Your task to perform on an android device: Open my contact list Image 0: 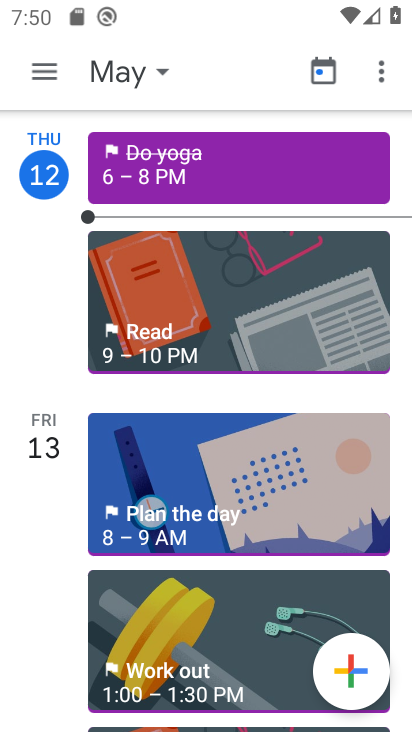
Step 0: press home button
Your task to perform on an android device: Open my contact list Image 1: 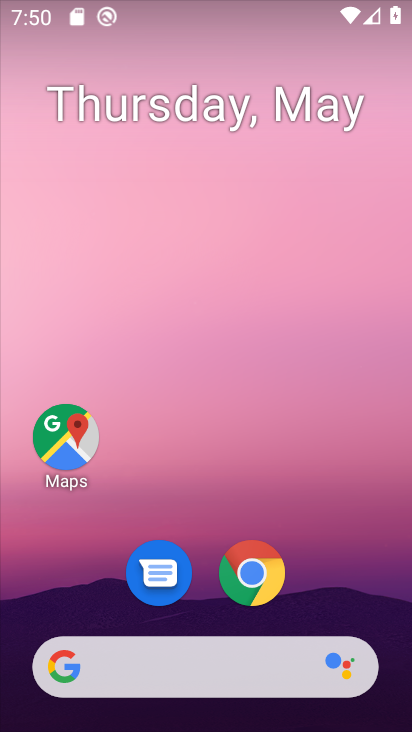
Step 1: drag from (203, 626) to (124, 9)
Your task to perform on an android device: Open my contact list Image 2: 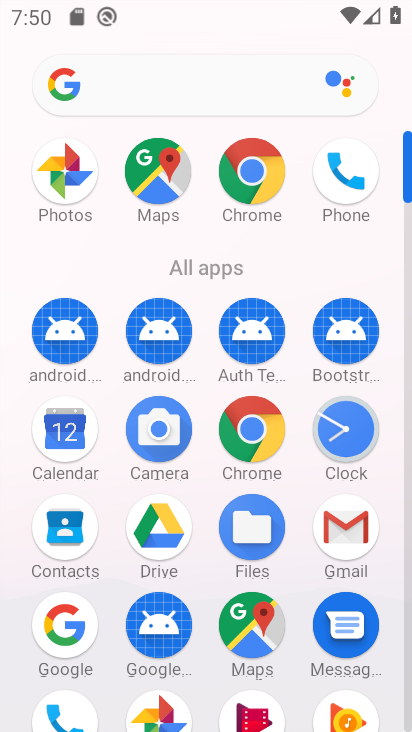
Step 2: click (49, 713)
Your task to perform on an android device: Open my contact list Image 3: 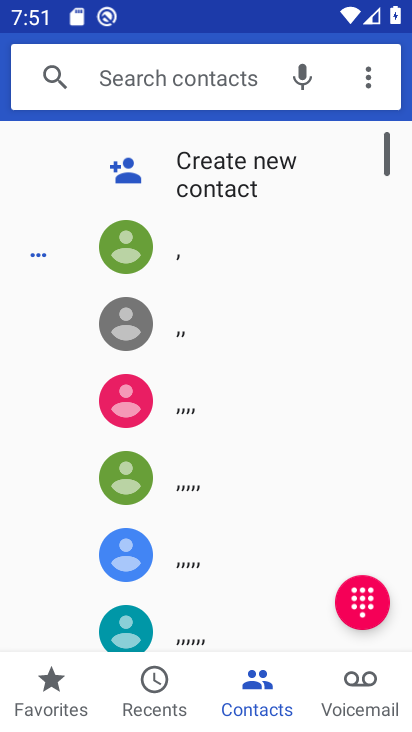
Step 3: press home button
Your task to perform on an android device: Open my contact list Image 4: 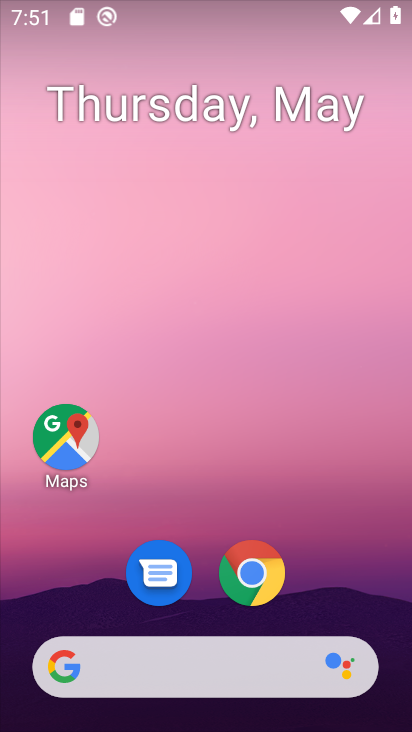
Step 4: drag from (201, 604) to (402, 656)
Your task to perform on an android device: Open my contact list Image 5: 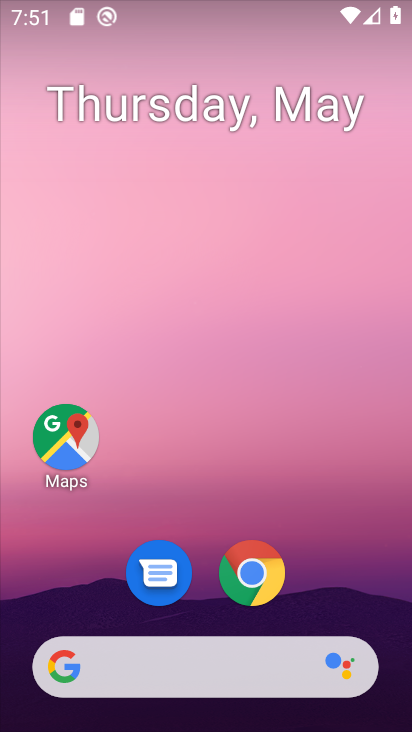
Step 5: click (195, 33)
Your task to perform on an android device: Open my contact list Image 6: 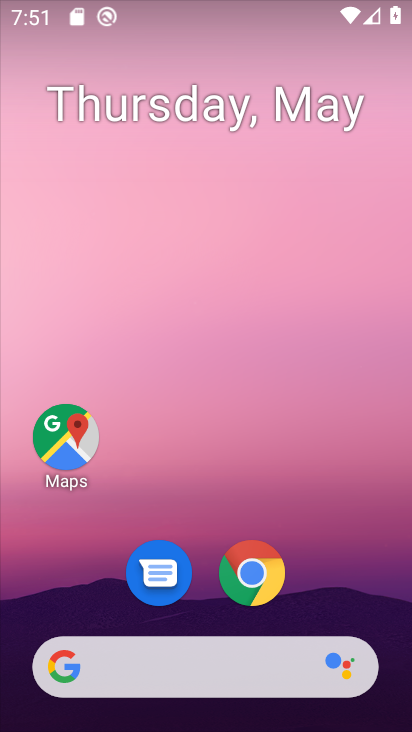
Step 6: drag from (207, 610) to (156, 100)
Your task to perform on an android device: Open my contact list Image 7: 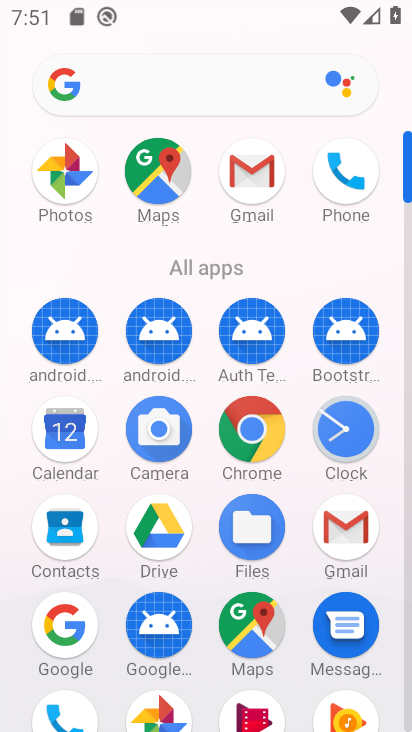
Step 7: click (328, 177)
Your task to perform on an android device: Open my contact list Image 8: 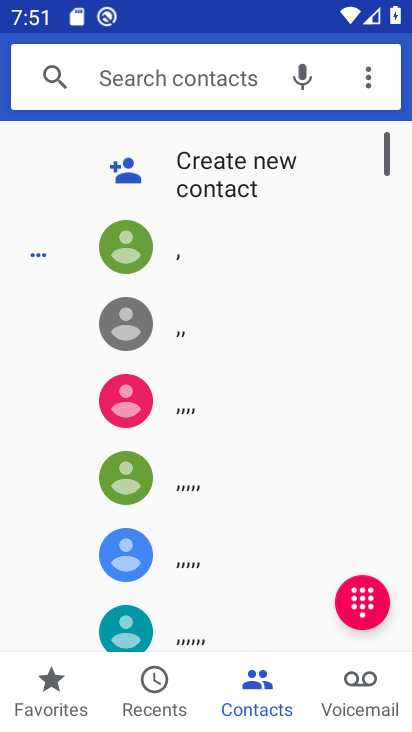
Step 8: click (256, 682)
Your task to perform on an android device: Open my contact list Image 9: 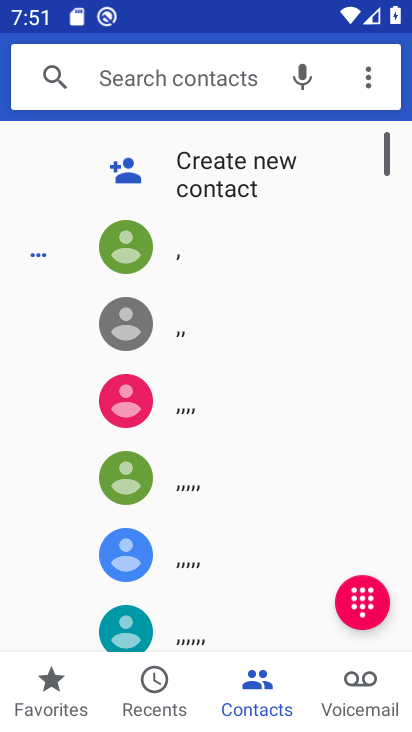
Step 9: task complete